Your task to perform on an android device: Go to privacy settings Image 0: 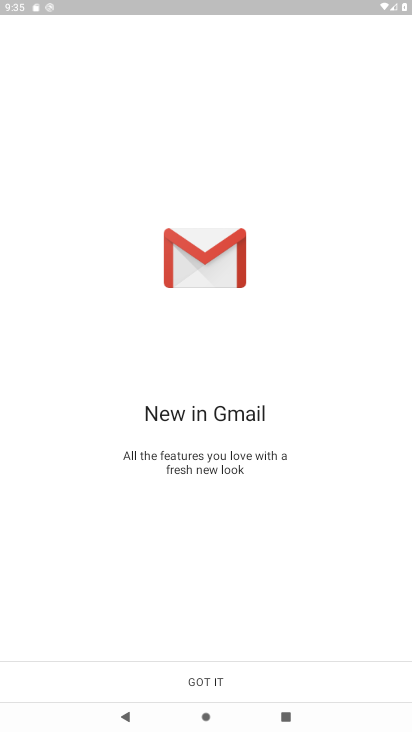
Step 0: press home button
Your task to perform on an android device: Go to privacy settings Image 1: 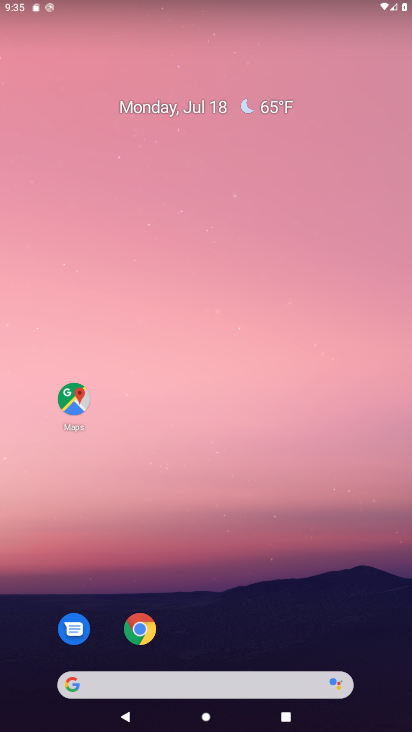
Step 1: click (188, 137)
Your task to perform on an android device: Go to privacy settings Image 2: 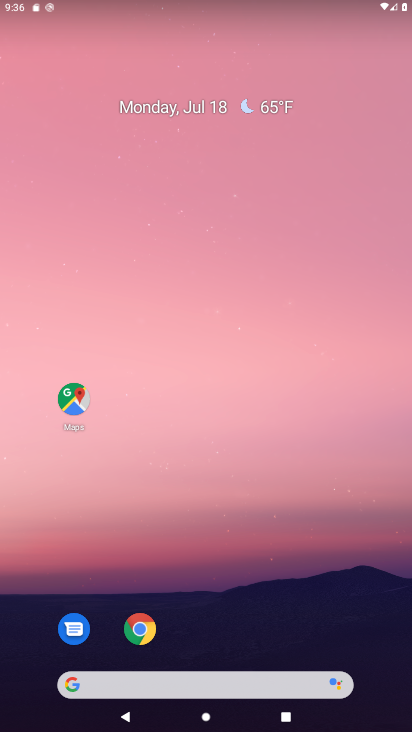
Step 2: drag from (248, 610) to (284, 100)
Your task to perform on an android device: Go to privacy settings Image 3: 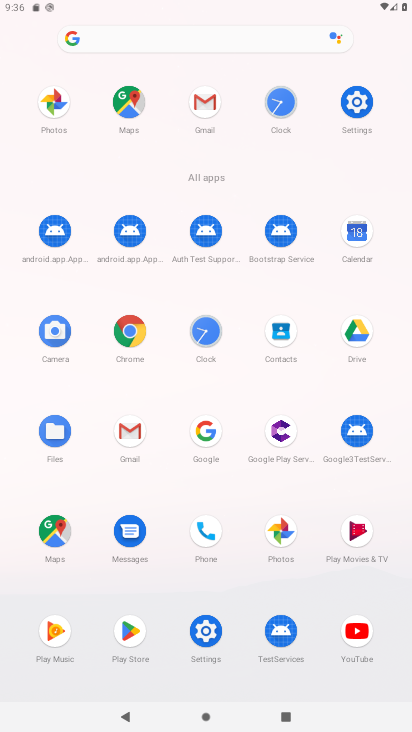
Step 3: click (354, 104)
Your task to perform on an android device: Go to privacy settings Image 4: 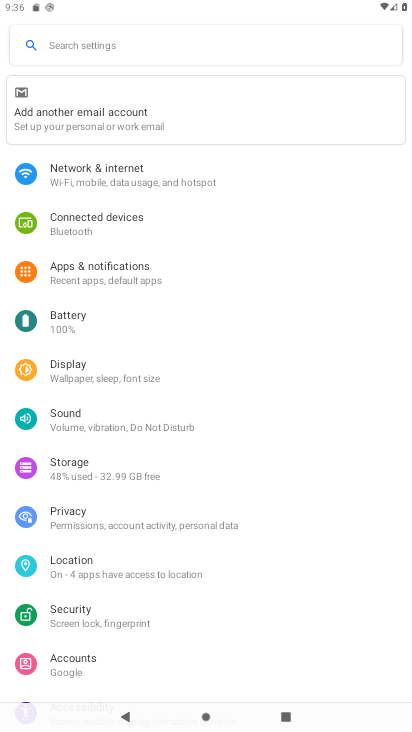
Step 4: click (63, 513)
Your task to perform on an android device: Go to privacy settings Image 5: 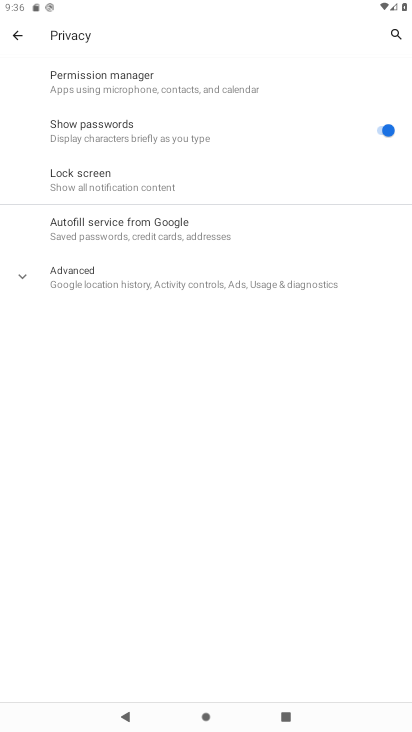
Step 5: task complete